Your task to perform on an android device: Go to sound settings Image 0: 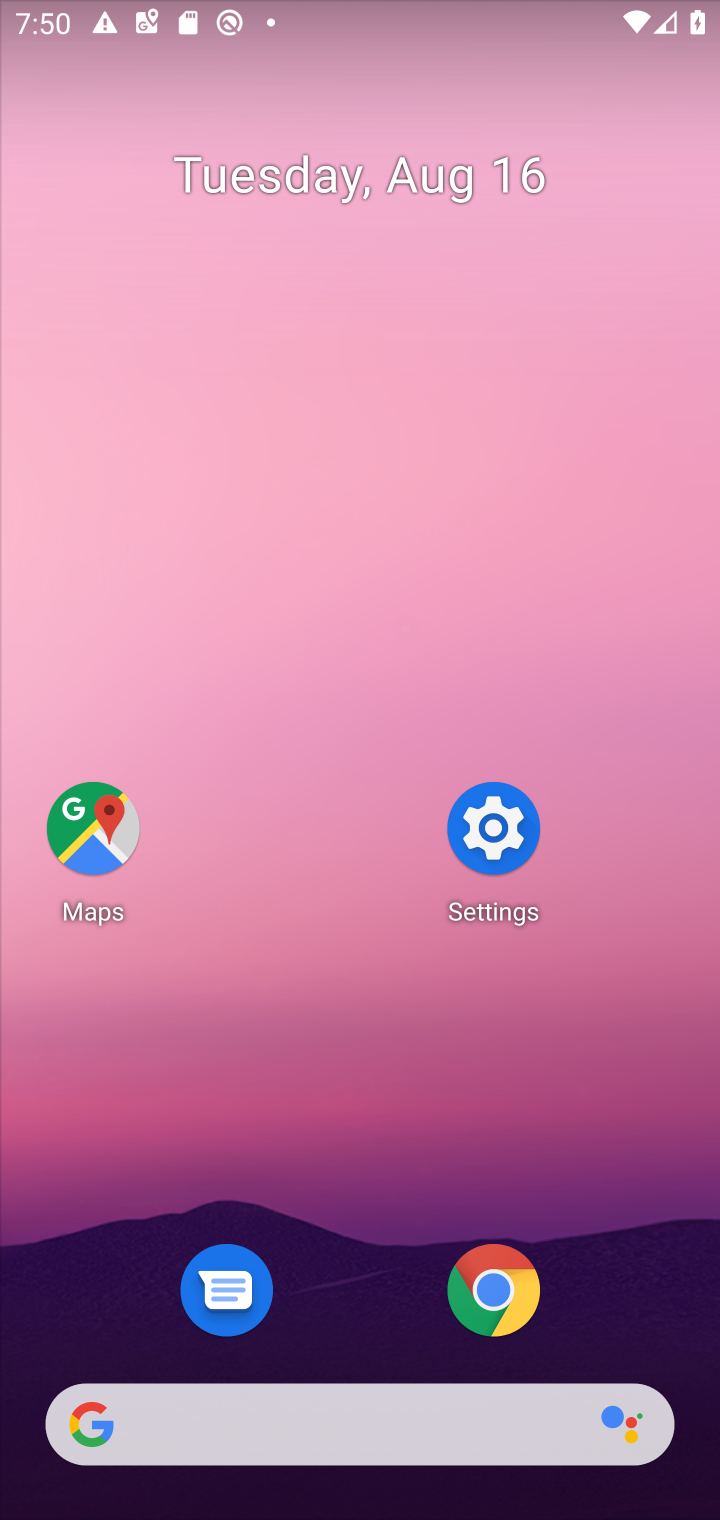
Step 0: press home button
Your task to perform on an android device: Go to sound settings Image 1: 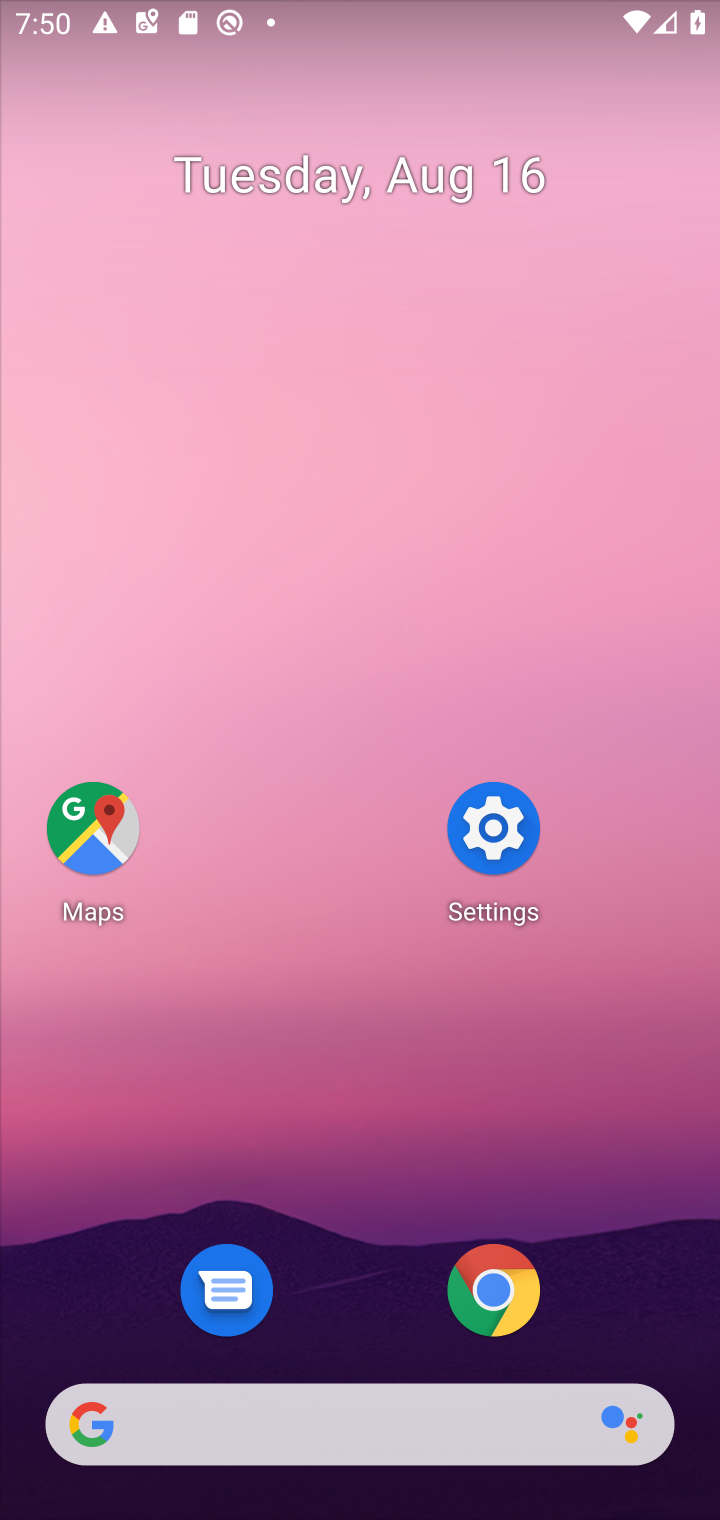
Step 1: click (496, 839)
Your task to perform on an android device: Go to sound settings Image 2: 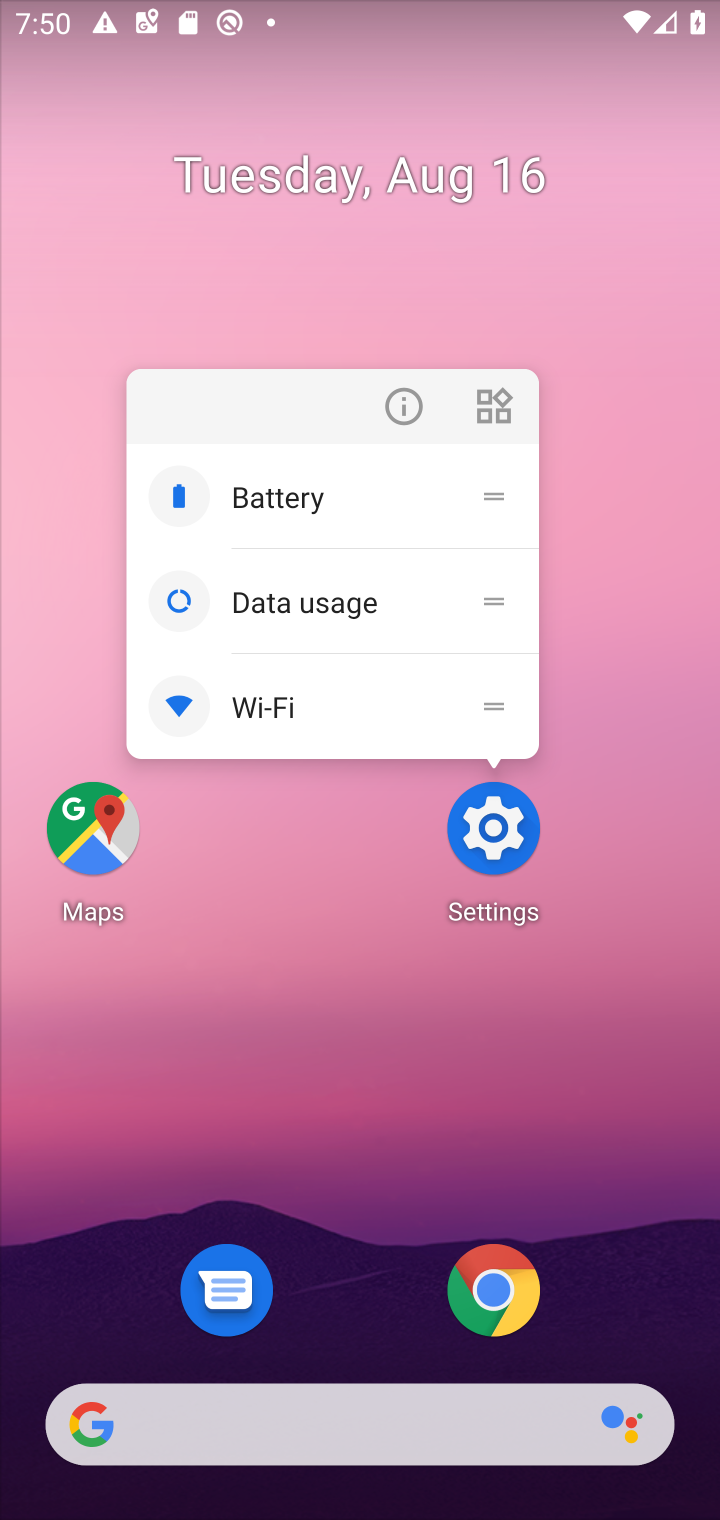
Step 2: click (496, 839)
Your task to perform on an android device: Go to sound settings Image 3: 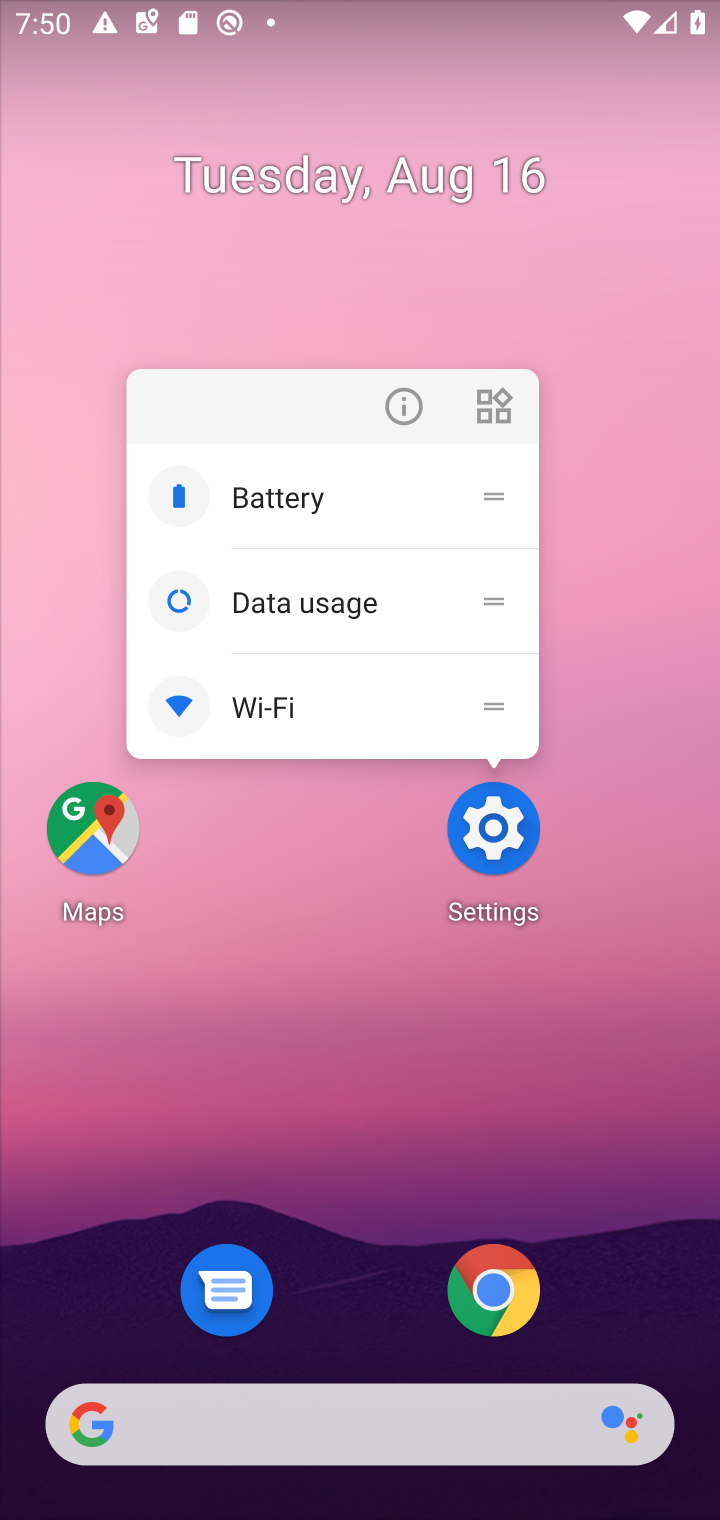
Step 3: click (496, 843)
Your task to perform on an android device: Go to sound settings Image 4: 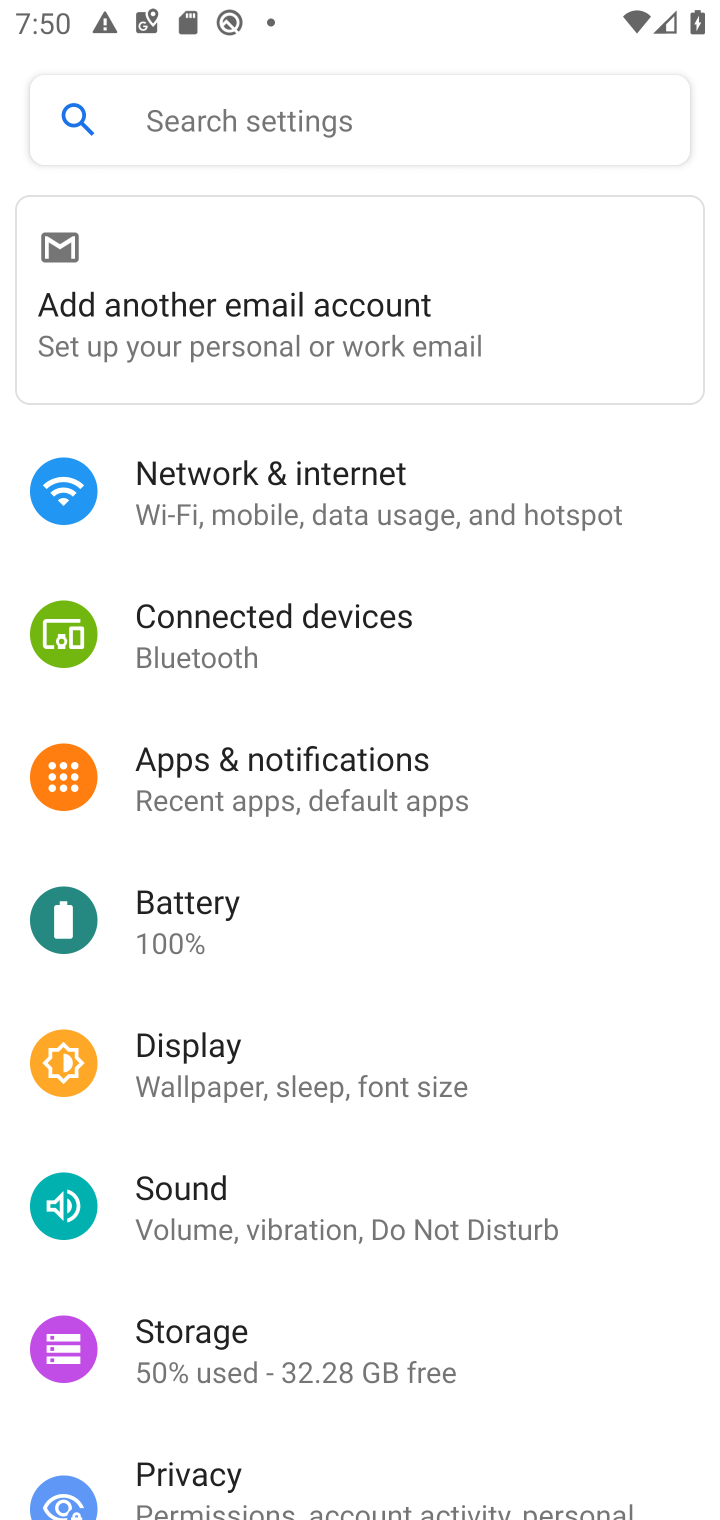
Step 4: click (190, 1215)
Your task to perform on an android device: Go to sound settings Image 5: 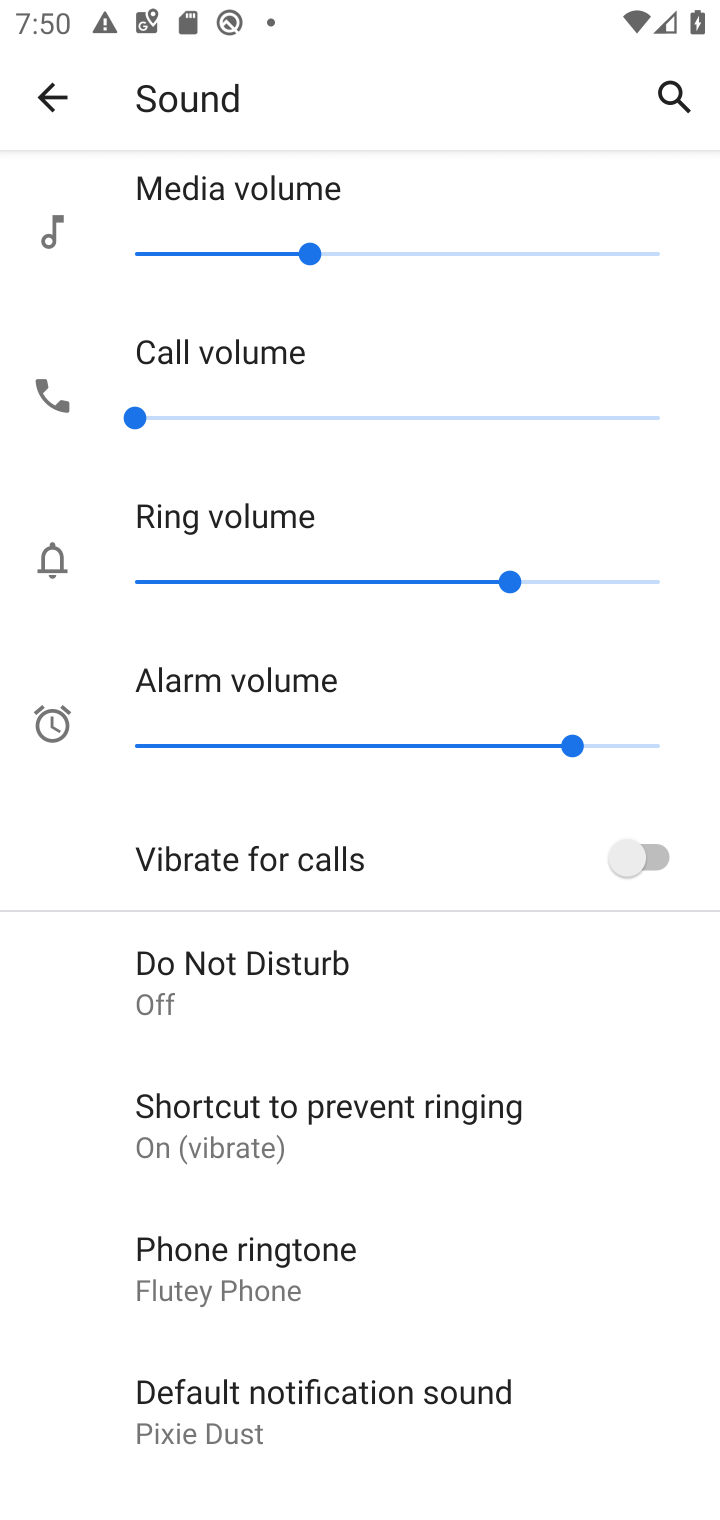
Step 5: task complete